Your task to perform on an android device: check android version Image 0: 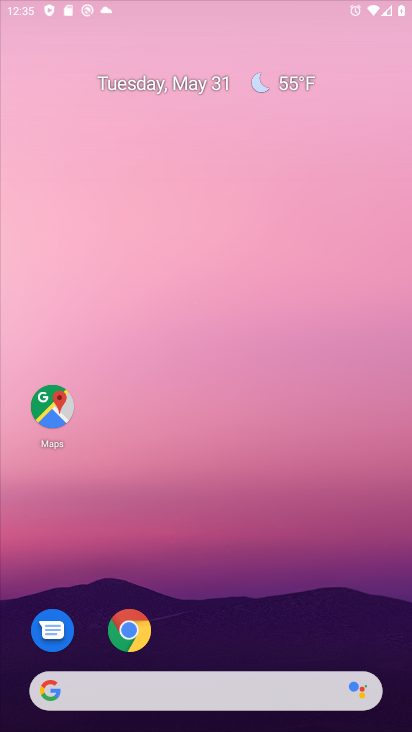
Step 0: press home button
Your task to perform on an android device: check android version Image 1: 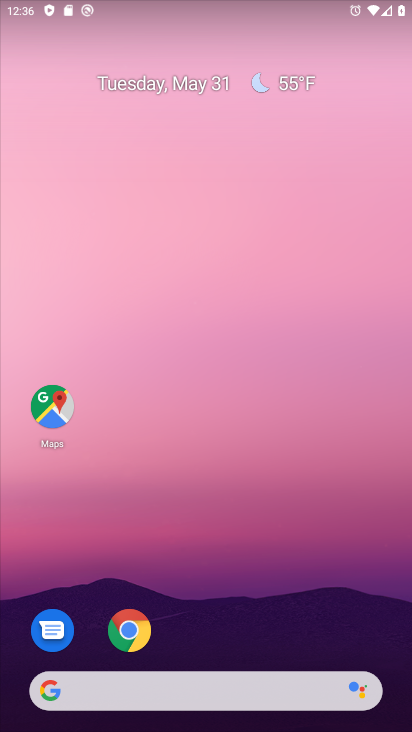
Step 1: drag from (234, 537) to (257, 239)
Your task to perform on an android device: check android version Image 2: 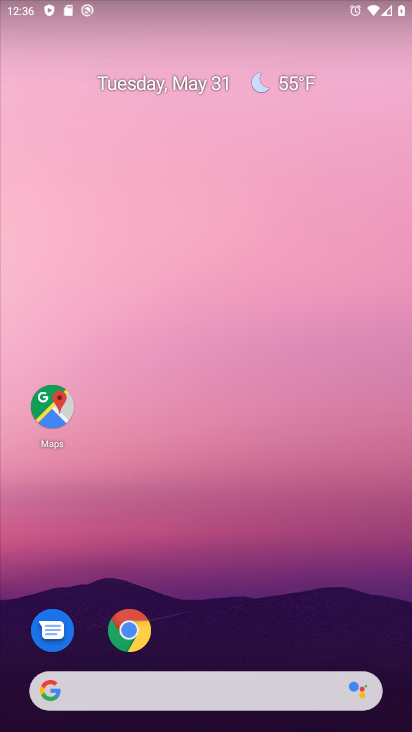
Step 2: drag from (237, 666) to (286, 181)
Your task to perform on an android device: check android version Image 3: 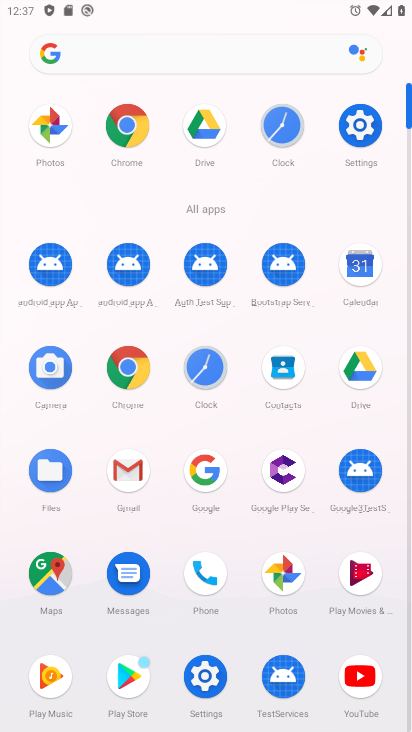
Step 3: click (118, 374)
Your task to perform on an android device: check android version Image 4: 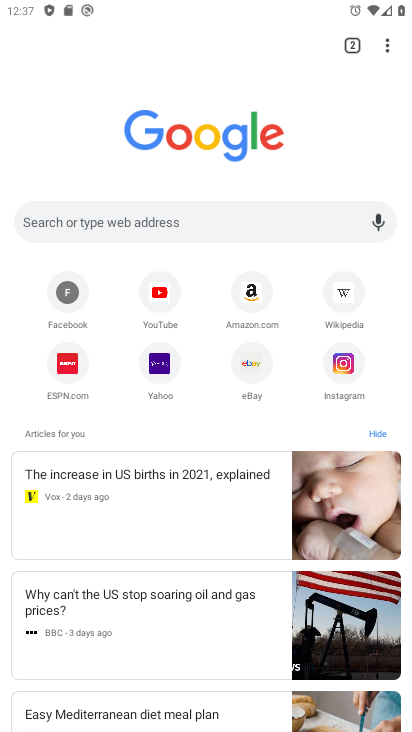
Step 4: press home button
Your task to perform on an android device: check android version Image 5: 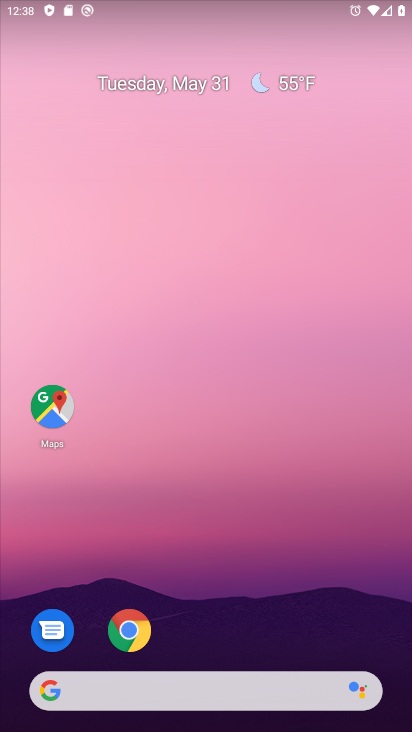
Step 5: drag from (193, 660) to (193, 240)
Your task to perform on an android device: check android version Image 6: 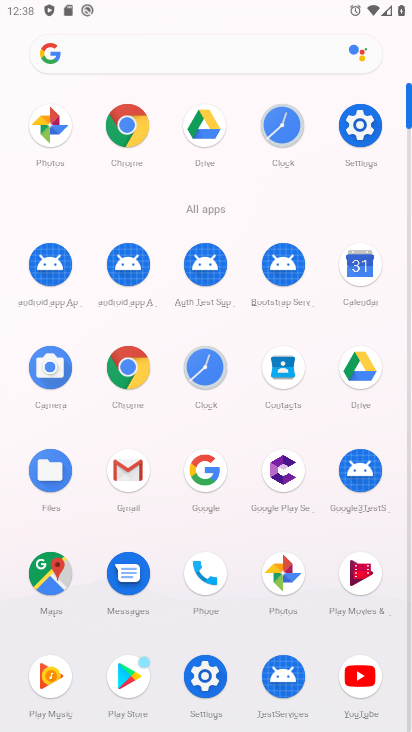
Step 6: click (358, 126)
Your task to perform on an android device: check android version Image 7: 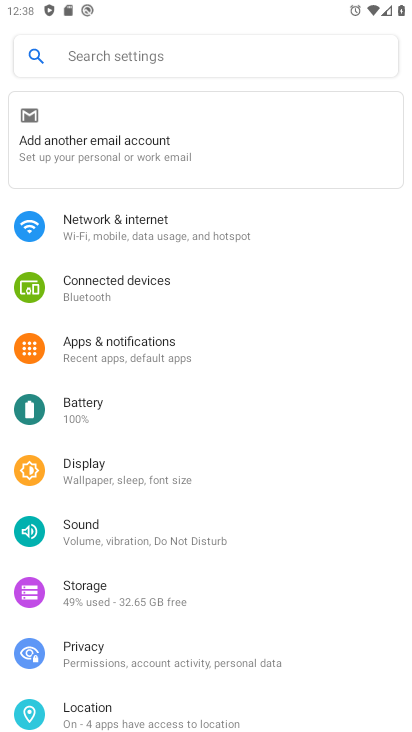
Step 7: drag from (146, 696) to (156, 298)
Your task to perform on an android device: check android version Image 8: 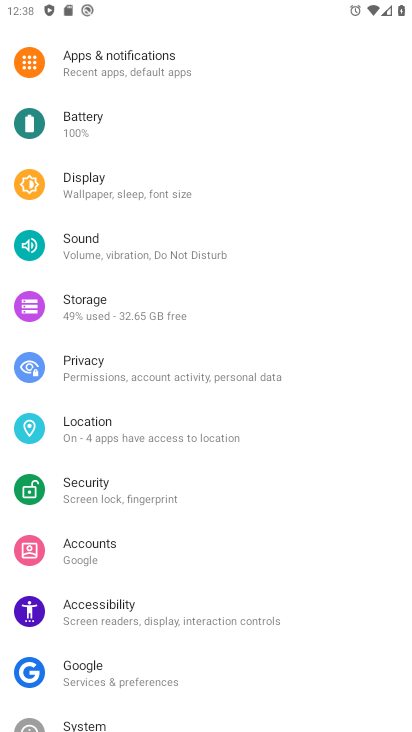
Step 8: drag from (159, 634) to (159, 400)
Your task to perform on an android device: check android version Image 9: 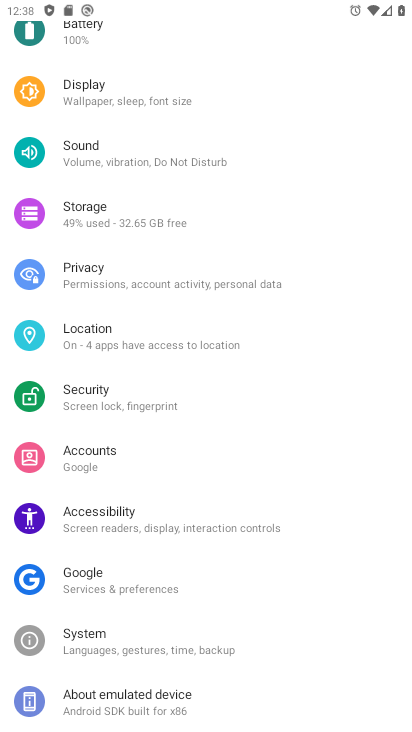
Step 9: click (167, 701)
Your task to perform on an android device: check android version Image 10: 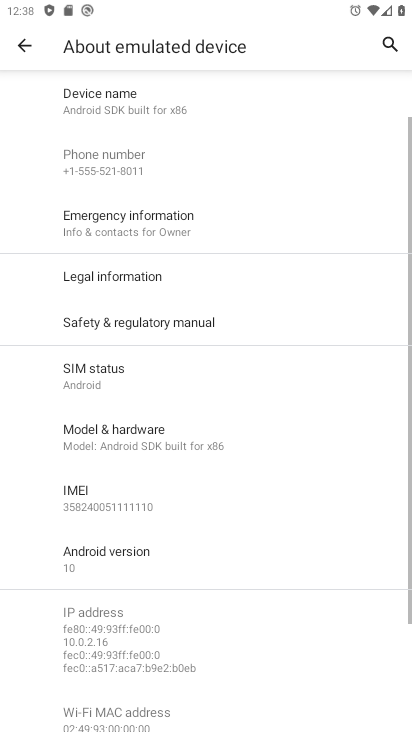
Step 10: click (85, 564)
Your task to perform on an android device: check android version Image 11: 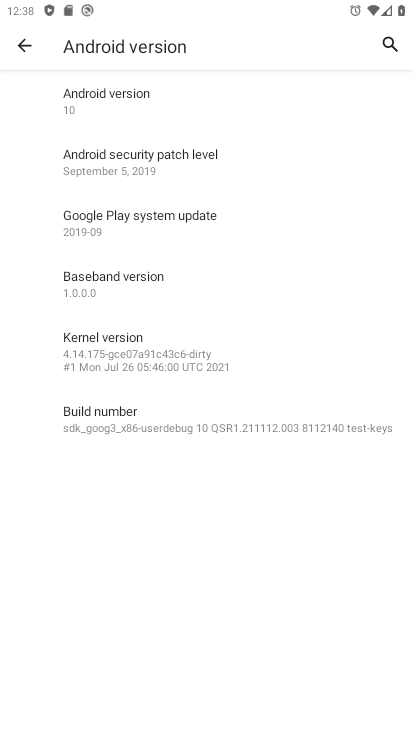
Step 11: task complete